Your task to perform on an android device: Go to CNN.com Image 0: 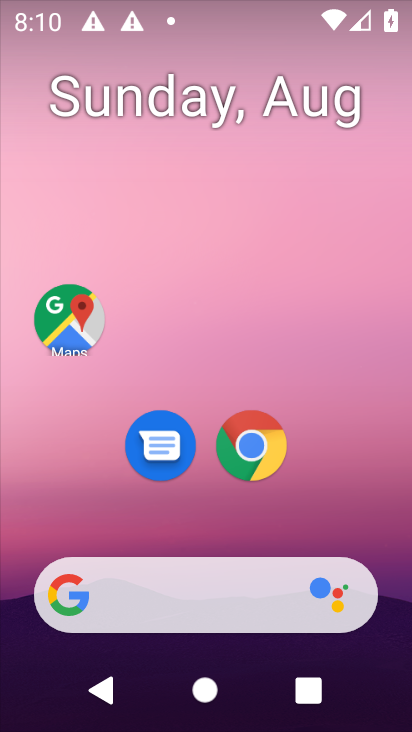
Step 0: press home button
Your task to perform on an android device: Go to CNN.com Image 1: 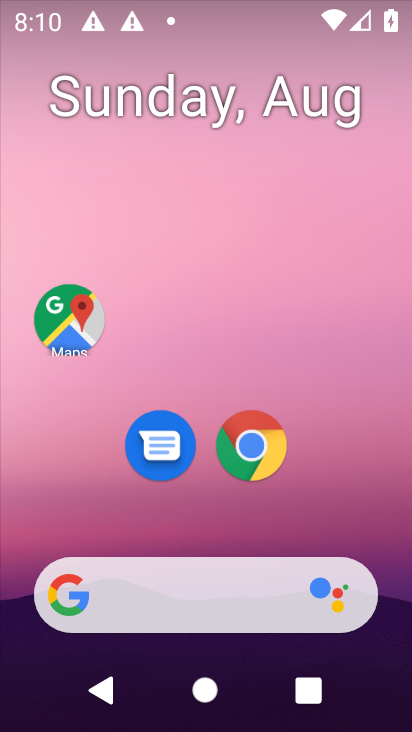
Step 1: press home button
Your task to perform on an android device: Go to CNN.com Image 2: 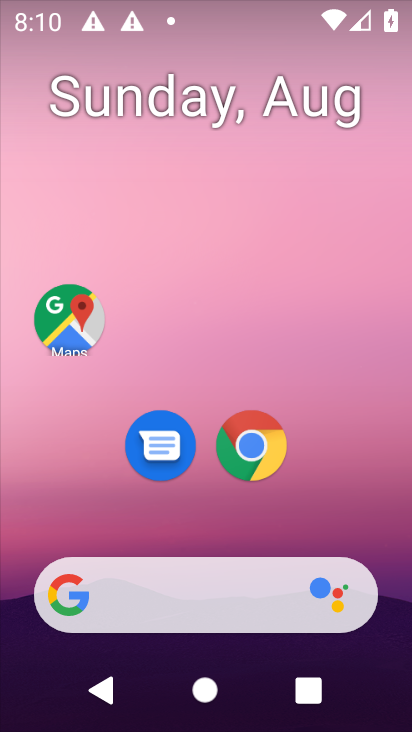
Step 2: click (251, 438)
Your task to perform on an android device: Go to CNN.com Image 3: 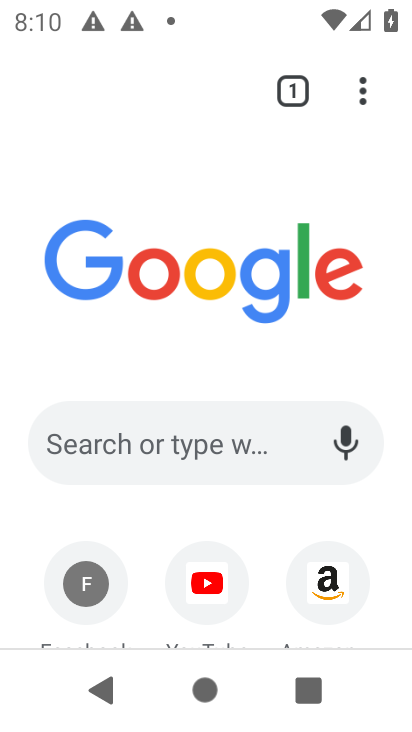
Step 3: click (167, 439)
Your task to perform on an android device: Go to CNN.com Image 4: 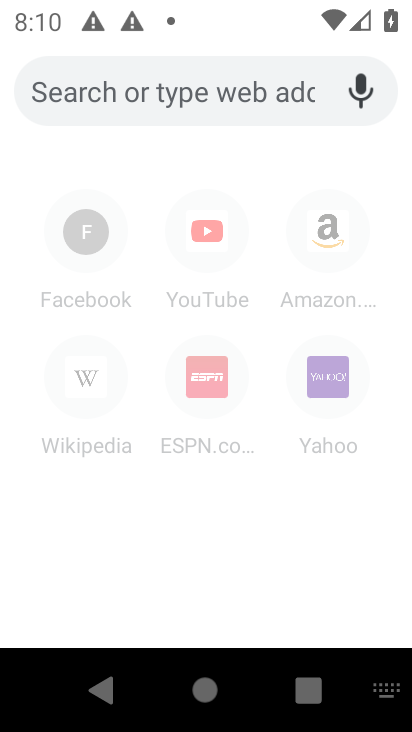
Step 4: type "cnn.com"
Your task to perform on an android device: Go to CNN.com Image 5: 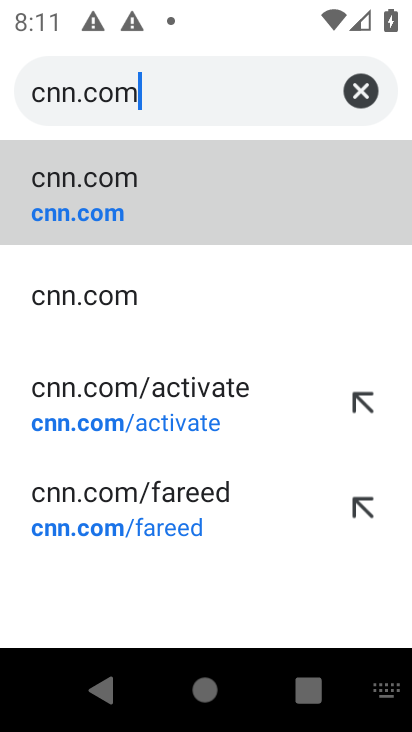
Step 5: click (87, 193)
Your task to perform on an android device: Go to CNN.com Image 6: 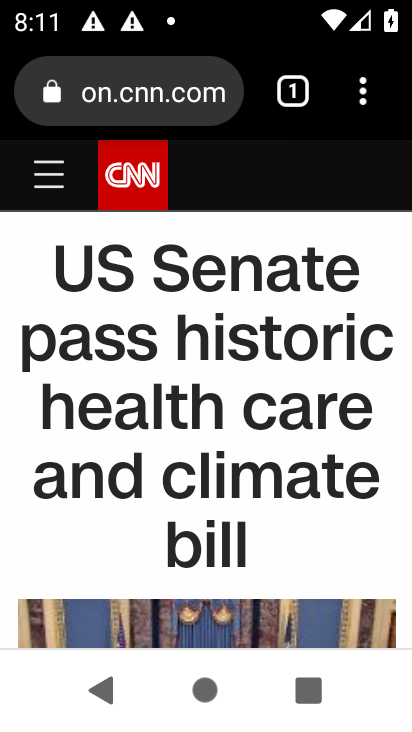
Step 6: drag from (273, 567) to (263, 156)
Your task to perform on an android device: Go to CNN.com Image 7: 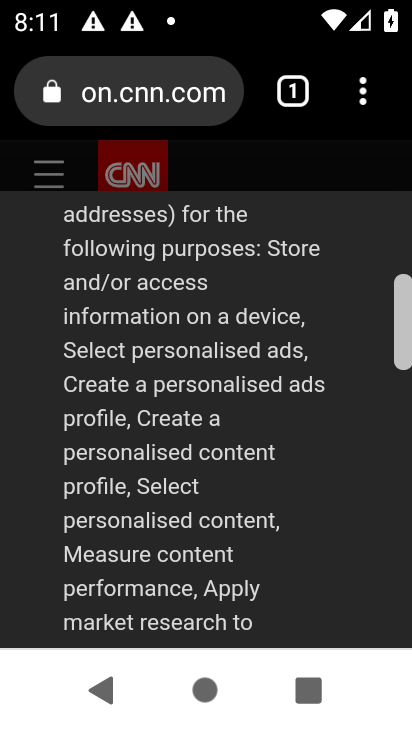
Step 7: drag from (235, 566) to (248, 130)
Your task to perform on an android device: Go to CNN.com Image 8: 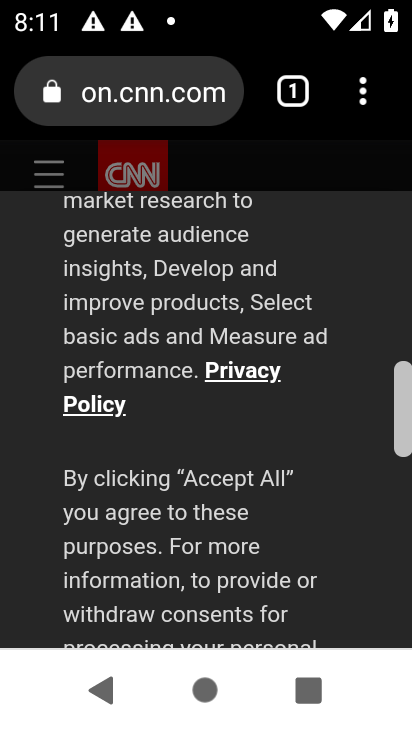
Step 8: click (198, 126)
Your task to perform on an android device: Go to CNN.com Image 9: 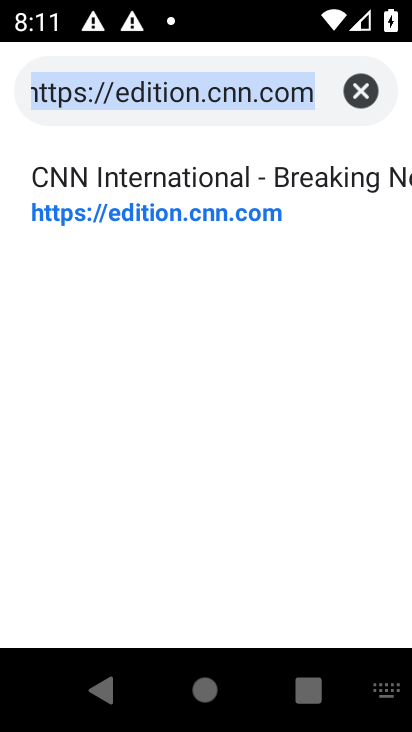
Step 9: click (197, 197)
Your task to perform on an android device: Go to CNN.com Image 10: 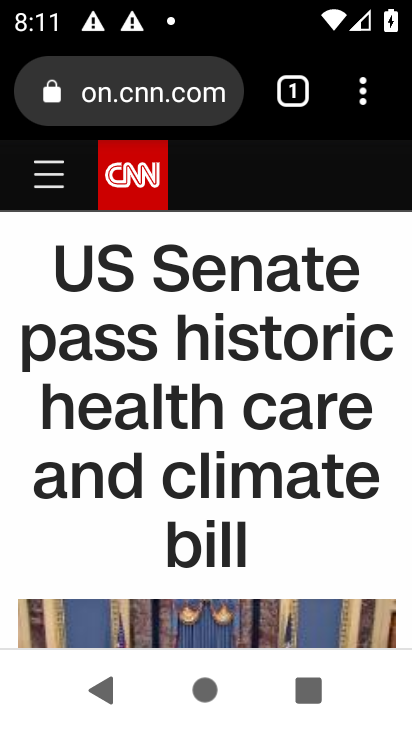
Step 10: task complete